Your task to perform on an android device: turn off picture-in-picture Image 0: 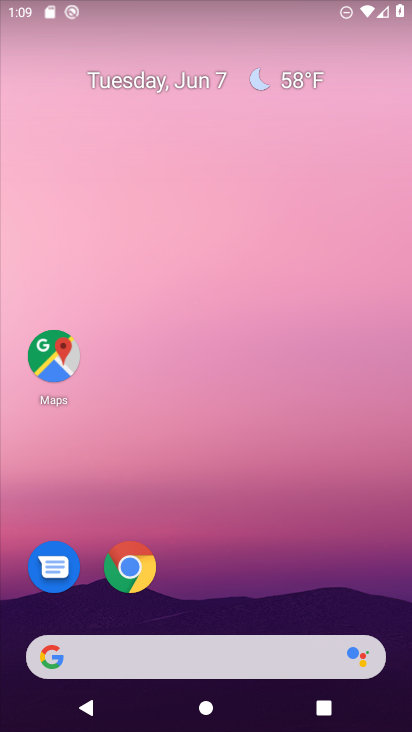
Step 0: click (127, 558)
Your task to perform on an android device: turn off picture-in-picture Image 1: 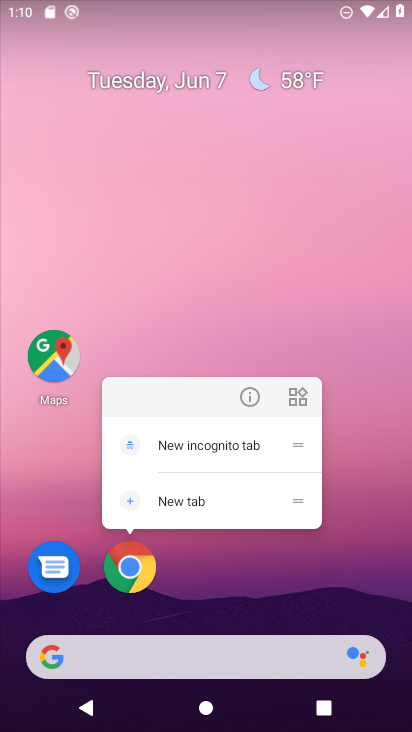
Step 1: click (255, 389)
Your task to perform on an android device: turn off picture-in-picture Image 2: 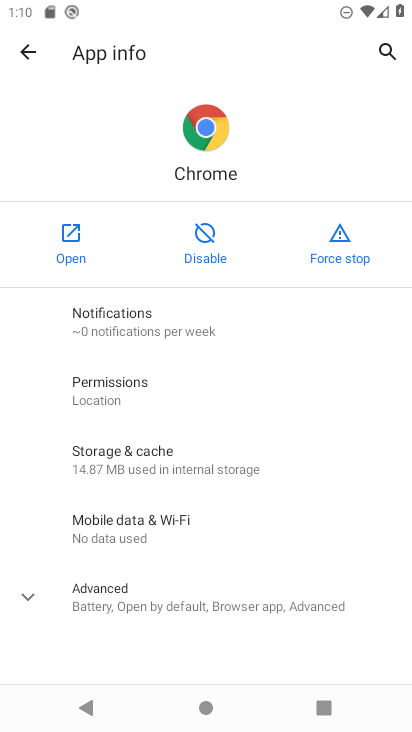
Step 2: click (90, 597)
Your task to perform on an android device: turn off picture-in-picture Image 3: 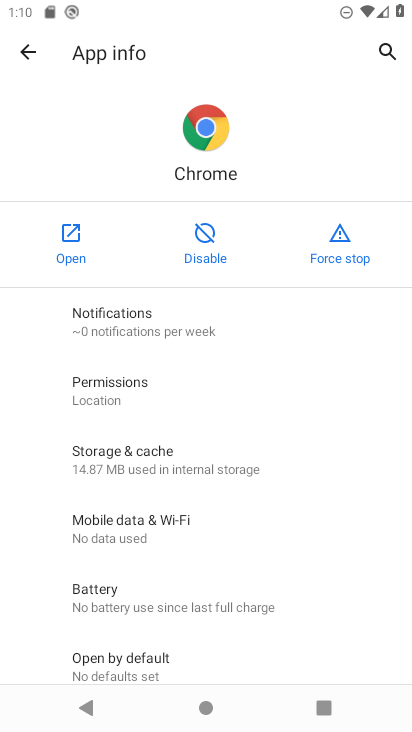
Step 3: drag from (282, 619) to (234, 198)
Your task to perform on an android device: turn off picture-in-picture Image 4: 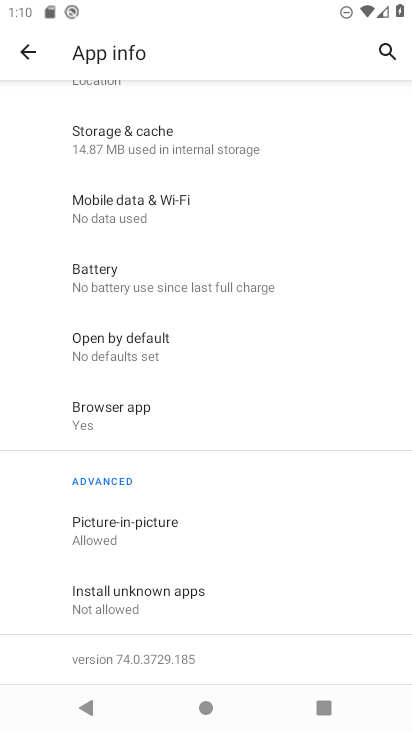
Step 4: click (122, 526)
Your task to perform on an android device: turn off picture-in-picture Image 5: 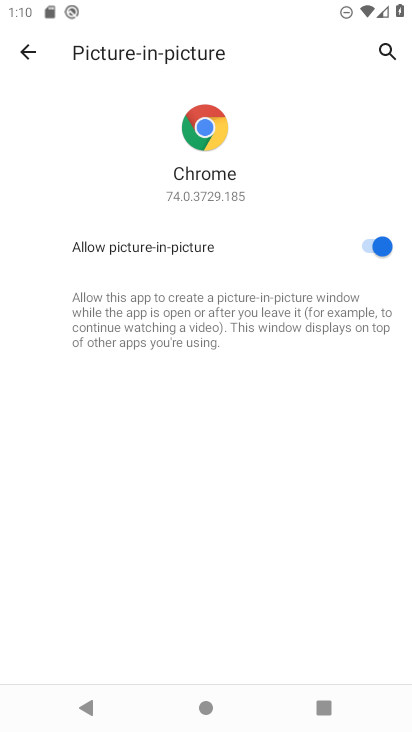
Step 5: click (369, 244)
Your task to perform on an android device: turn off picture-in-picture Image 6: 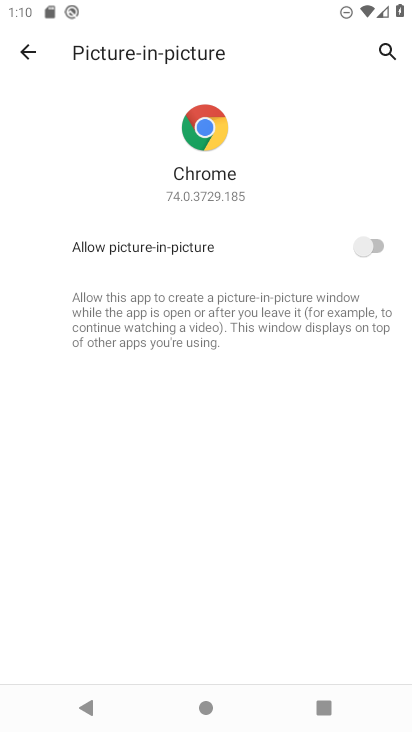
Step 6: task complete